Your task to perform on an android device: Open eBay Image 0: 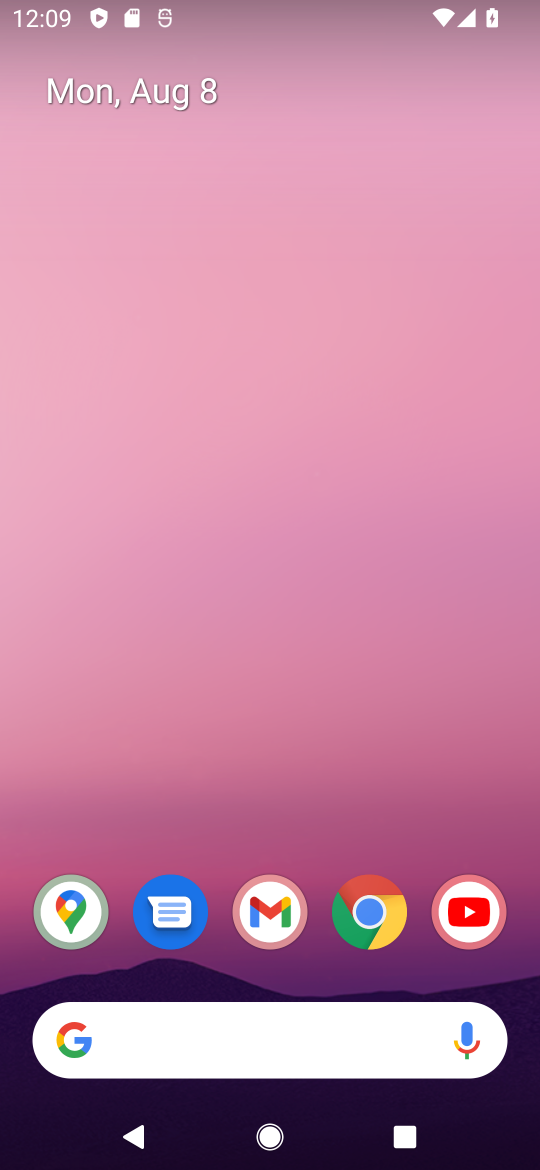
Step 0: click (381, 922)
Your task to perform on an android device: Open eBay Image 1: 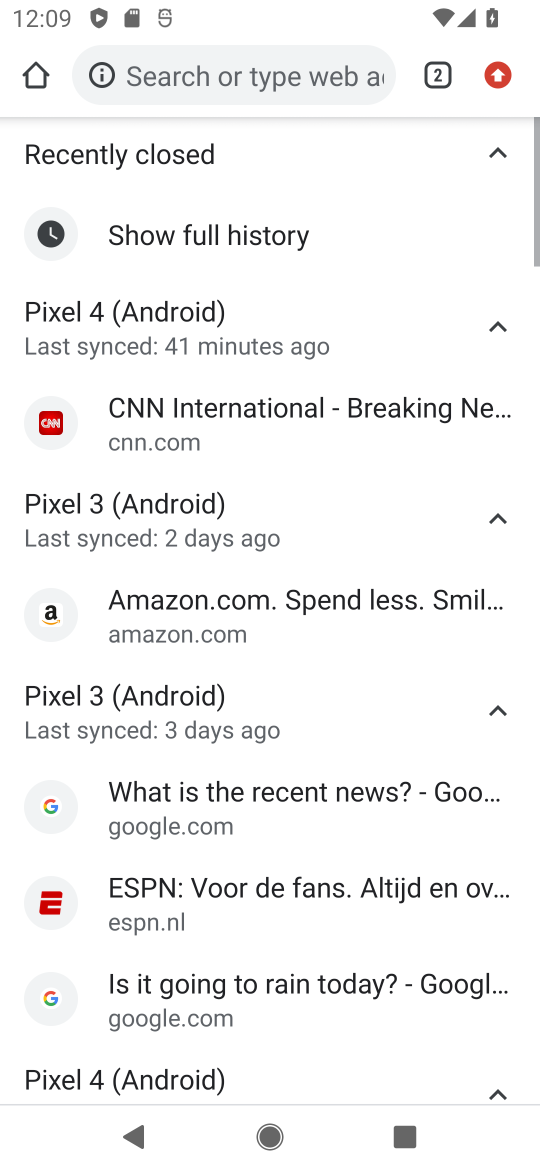
Step 1: click (427, 83)
Your task to perform on an android device: Open eBay Image 2: 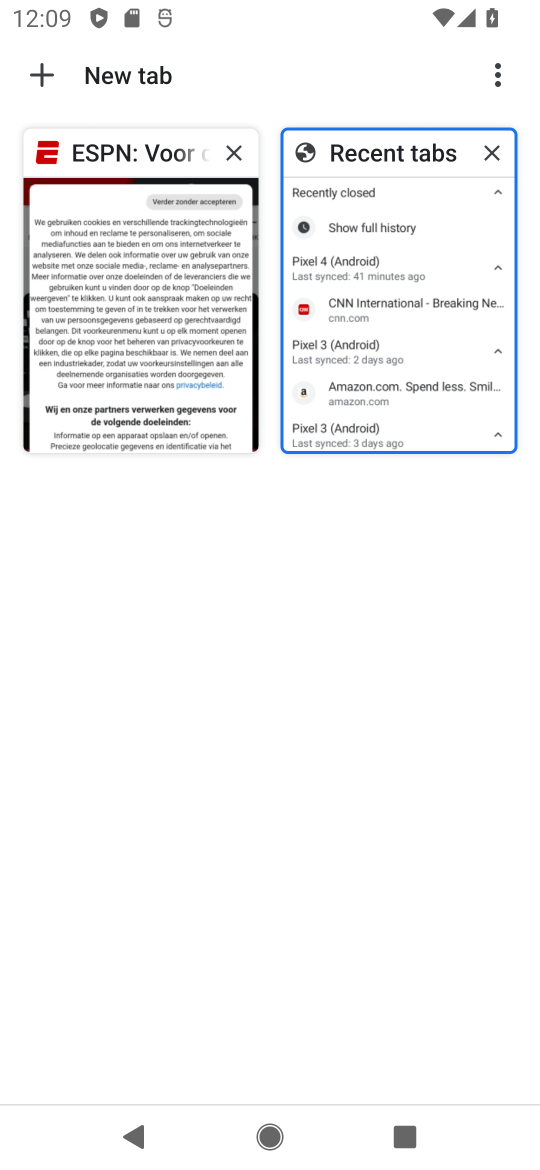
Step 2: click (40, 63)
Your task to perform on an android device: Open eBay Image 3: 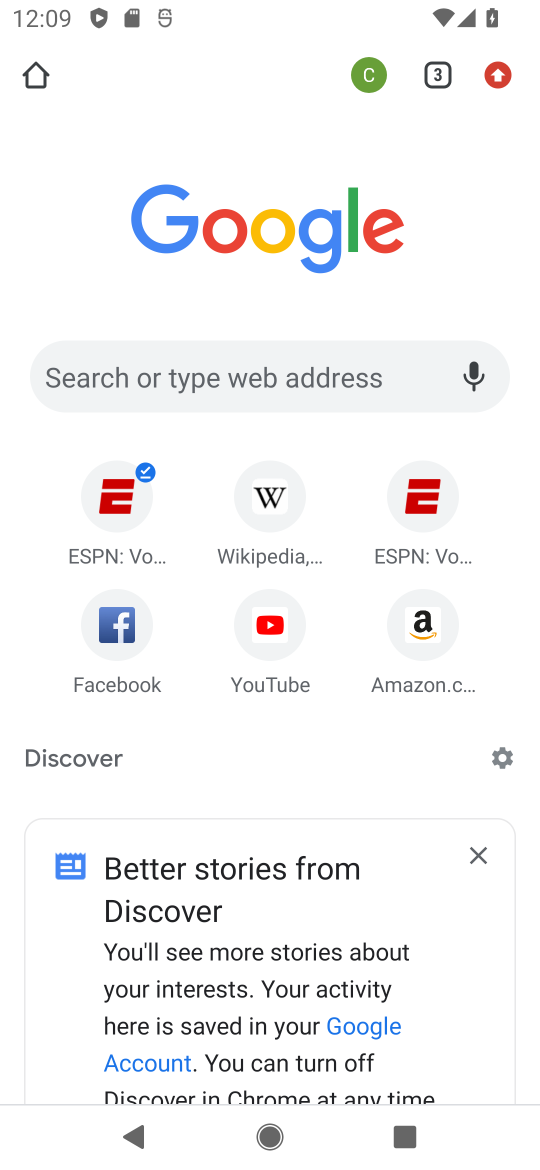
Step 3: click (221, 371)
Your task to perform on an android device: Open eBay Image 4: 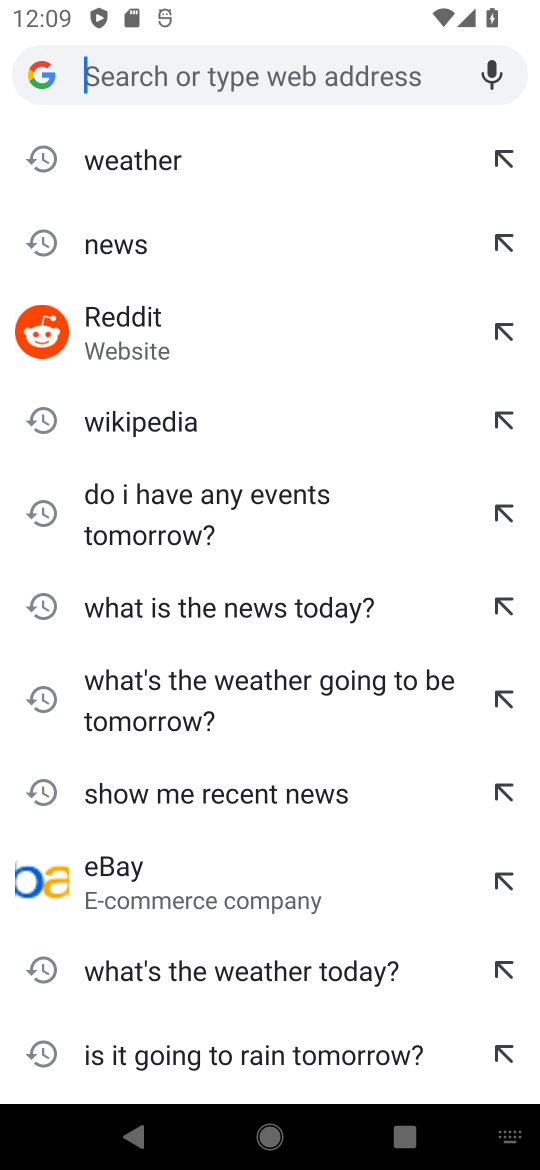
Step 4: type "ebay"
Your task to perform on an android device: Open eBay Image 5: 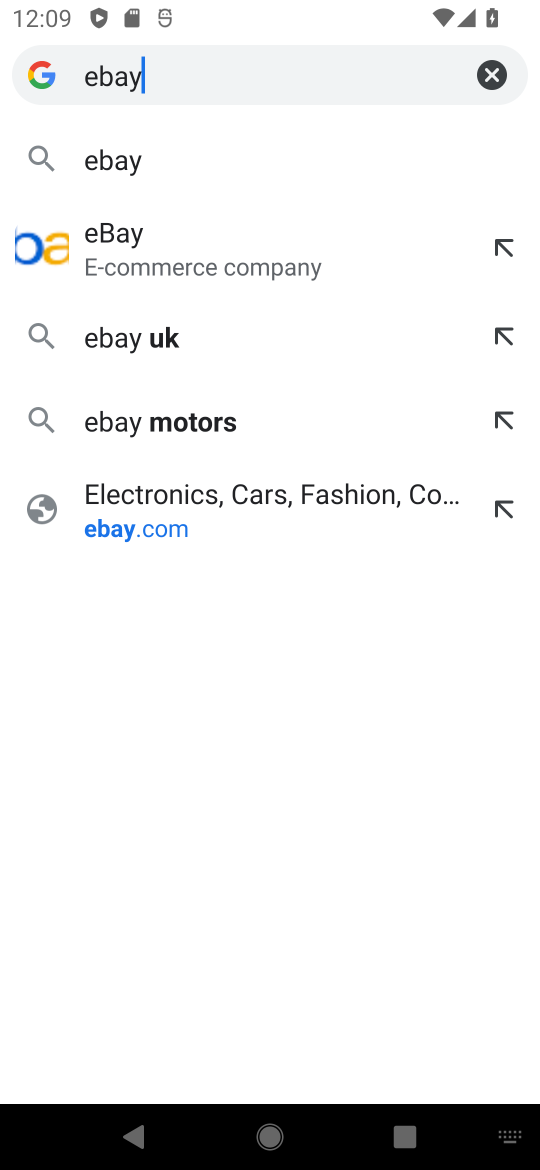
Step 5: click (150, 149)
Your task to perform on an android device: Open eBay Image 6: 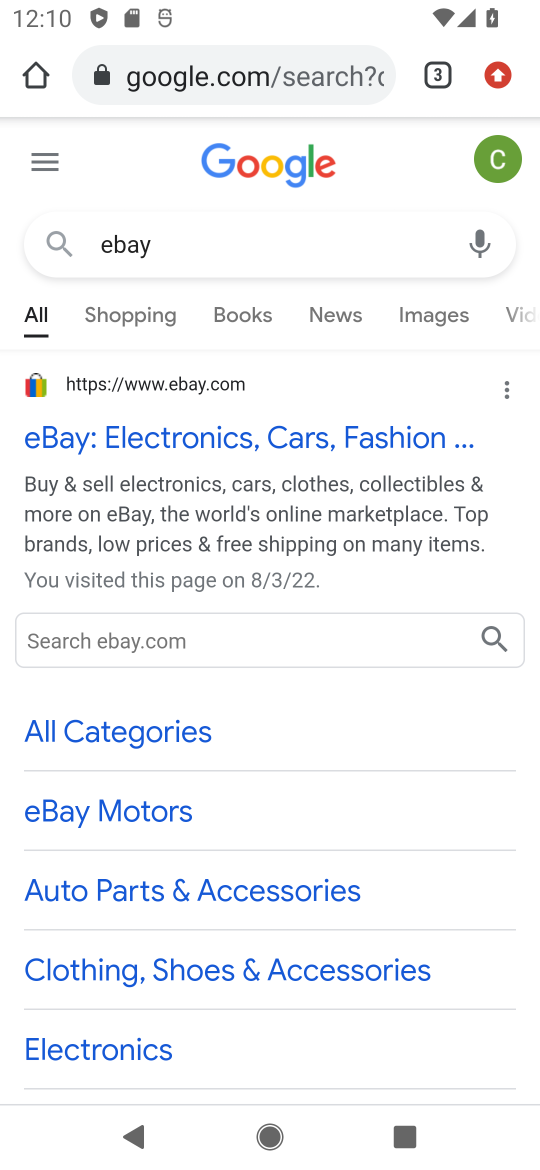
Step 6: click (261, 422)
Your task to perform on an android device: Open eBay Image 7: 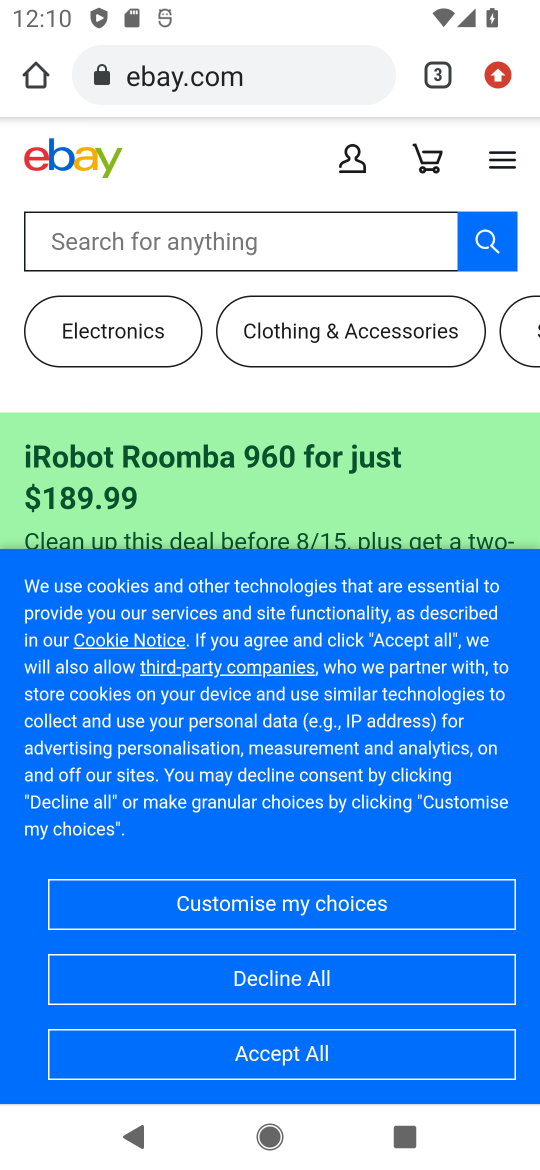
Step 7: task complete